Your task to perform on an android device: Search for seafood restaurants on Google Maps Image 0: 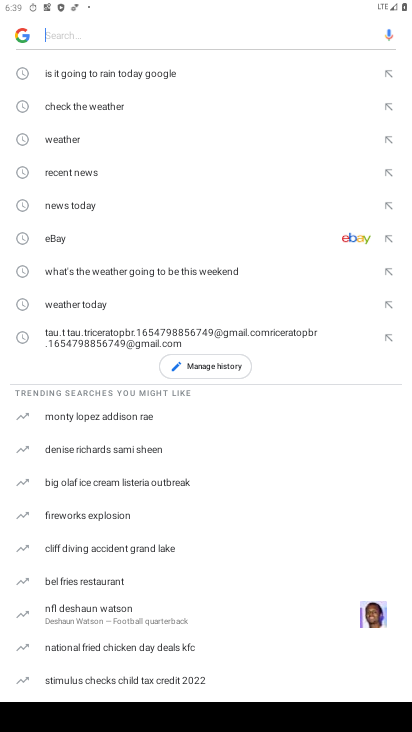
Step 0: press home button
Your task to perform on an android device: Search for seafood restaurants on Google Maps Image 1: 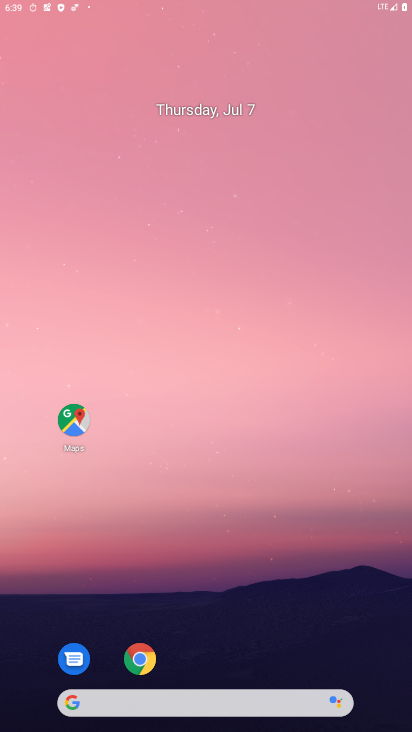
Step 1: drag from (371, 690) to (207, 32)
Your task to perform on an android device: Search for seafood restaurants on Google Maps Image 2: 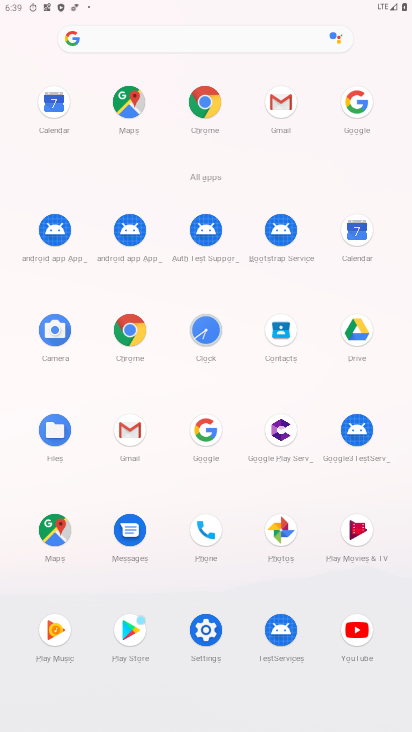
Step 2: click (60, 528)
Your task to perform on an android device: Search for seafood restaurants on Google Maps Image 3: 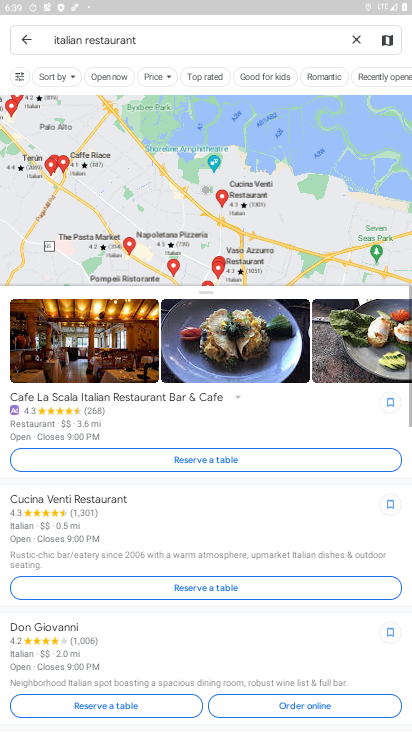
Step 3: click (359, 41)
Your task to perform on an android device: Search for seafood restaurants on Google Maps Image 4: 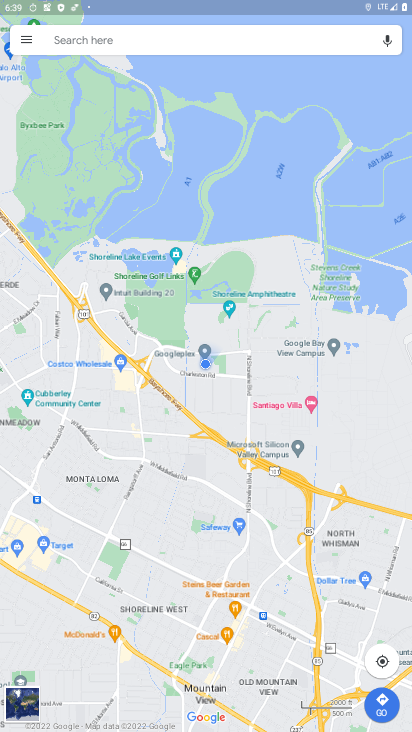
Step 4: click (131, 37)
Your task to perform on an android device: Search for seafood restaurants on Google Maps Image 5: 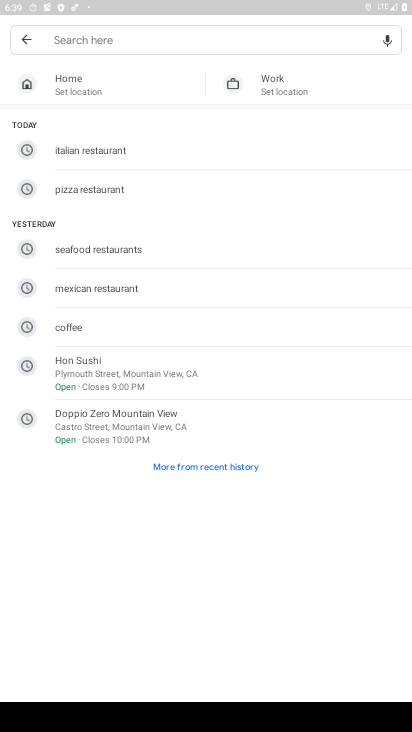
Step 5: click (100, 255)
Your task to perform on an android device: Search for seafood restaurants on Google Maps Image 6: 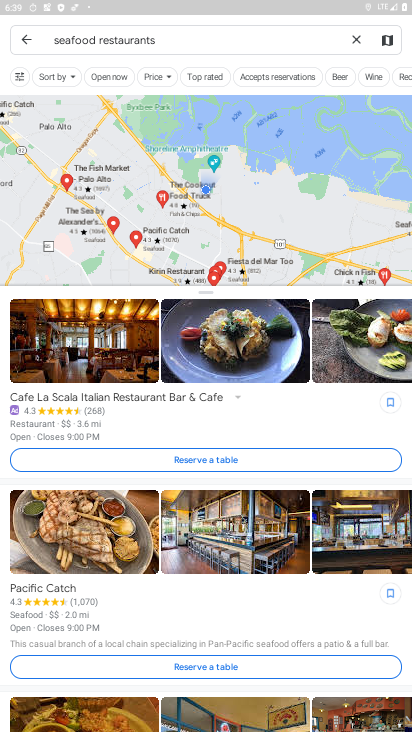
Step 6: task complete